Your task to perform on an android device: Open Google Chrome and click the shortcut for Amazon.com Image 0: 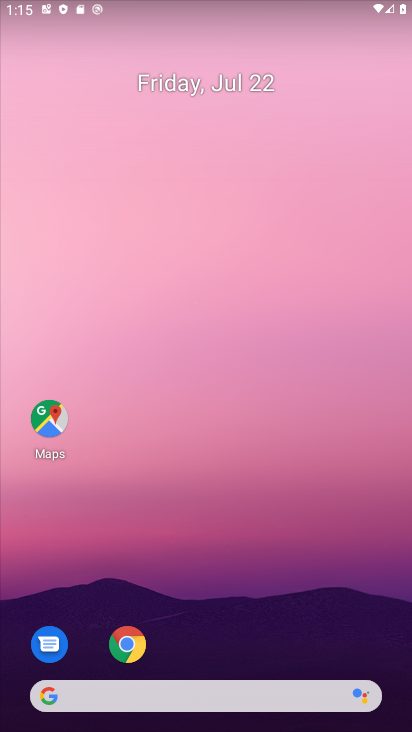
Step 0: press home button
Your task to perform on an android device: Open Google Chrome and click the shortcut for Amazon.com Image 1: 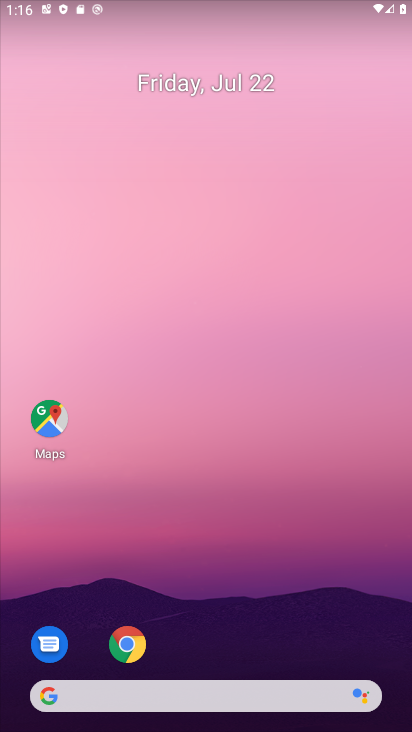
Step 1: drag from (215, 659) to (250, 0)
Your task to perform on an android device: Open Google Chrome and click the shortcut for Amazon.com Image 2: 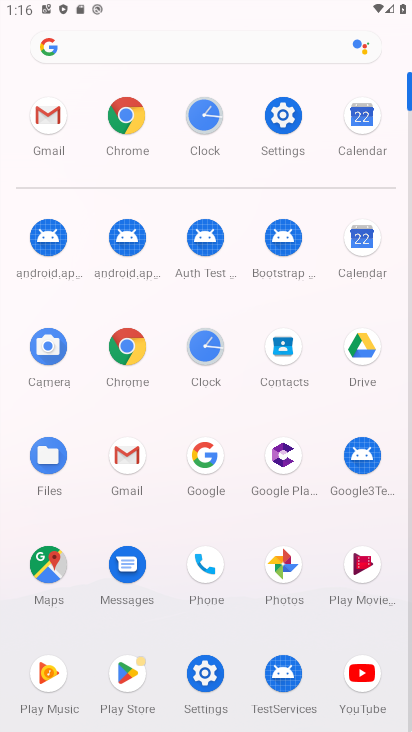
Step 2: click (121, 109)
Your task to perform on an android device: Open Google Chrome and click the shortcut for Amazon.com Image 3: 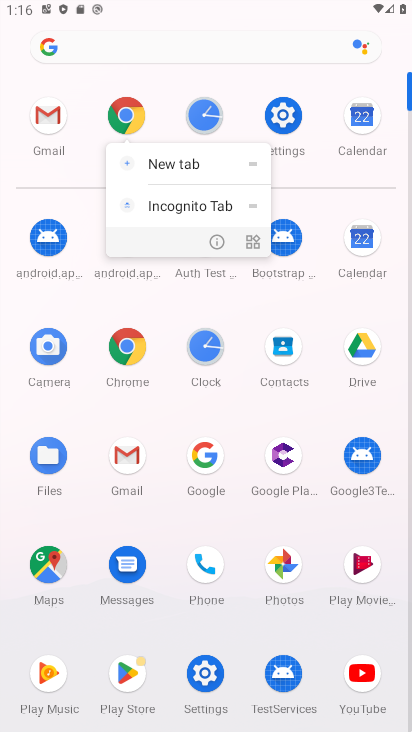
Step 3: click (128, 340)
Your task to perform on an android device: Open Google Chrome and click the shortcut for Amazon.com Image 4: 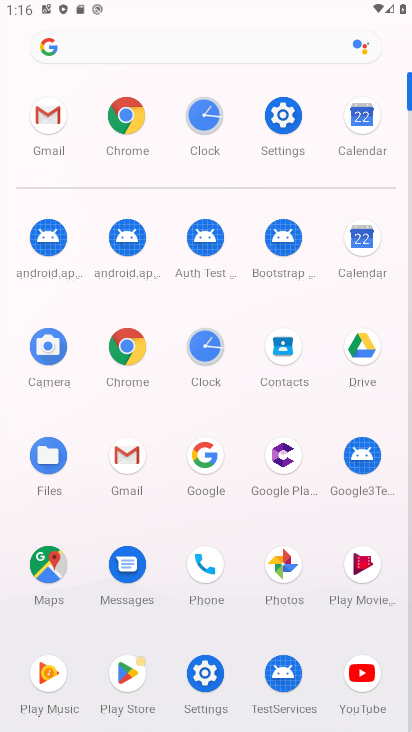
Step 4: click (126, 339)
Your task to perform on an android device: Open Google Chrome and click the shortcut for Amazon.com Image 5: 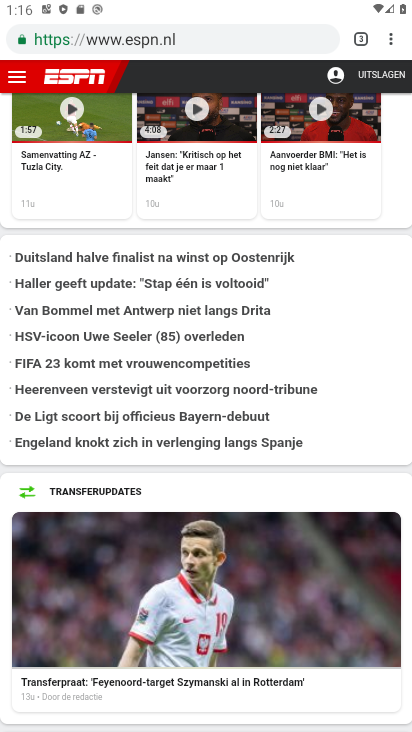
Step 5: click (362, 40)
Your task to perform on an android device: Open Google Chrome and click the shortcut for Amazon.com Image 6: 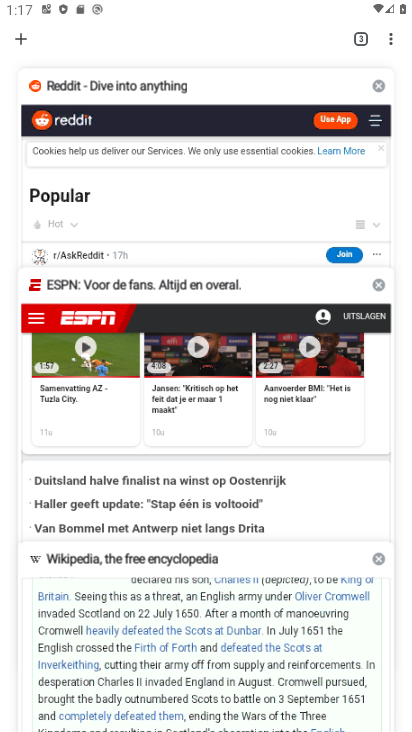
Step 6: click (21, 32)
Your task to perform on an android device: Open Google Chrome and click the shortcut for Amazon.com Image 7: 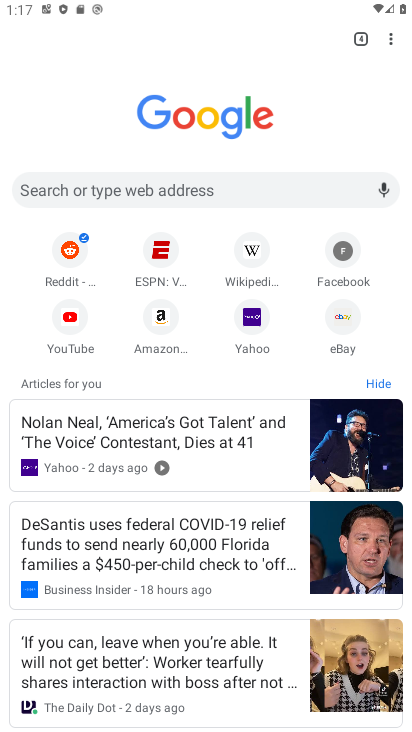
Step 7: click (163, 306)
Your task to perform on an android device: Open Google Chrome and click the shortcut for Amazon.com Image 8: 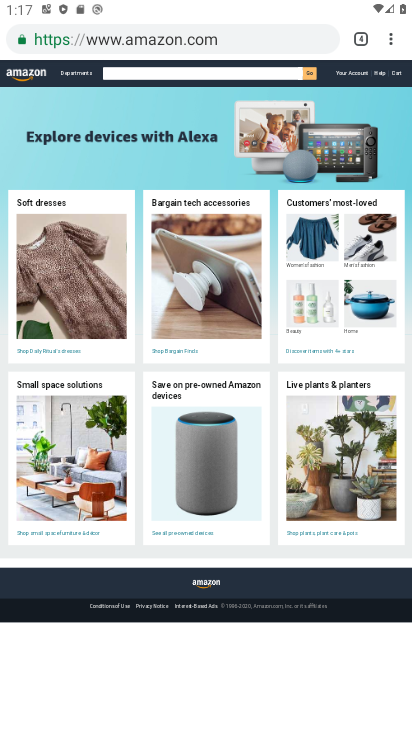
Step 8: task complete